Your task to perform on an android device: What's the weather? Image 0: 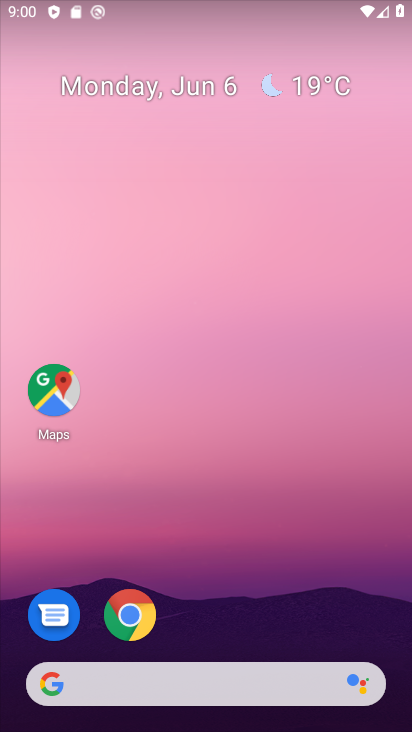
Step 0: drag from (299, 605) to (211, 172)
Your task to perform on an android device: What's the weather? Image 1: 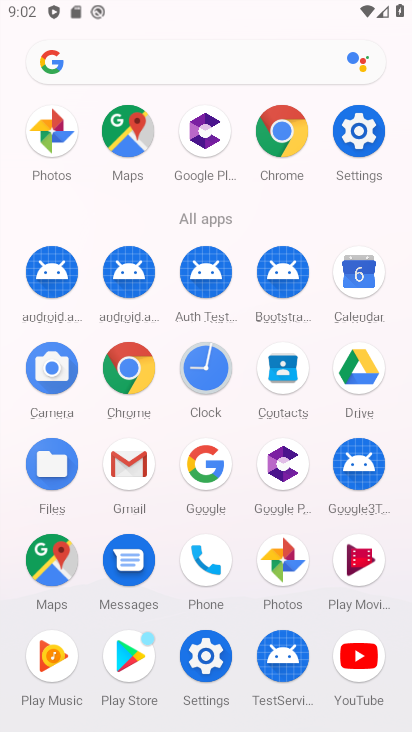
Step 1: click (220, 78)
Your task to perform on an android device: What's the weather? Image 2: 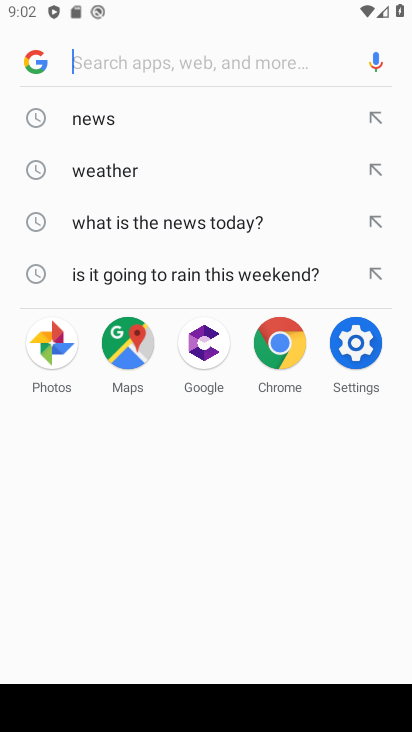
Step 2: click (155, 170)
Your task to perform on an android device: What's the weather? Image 3: 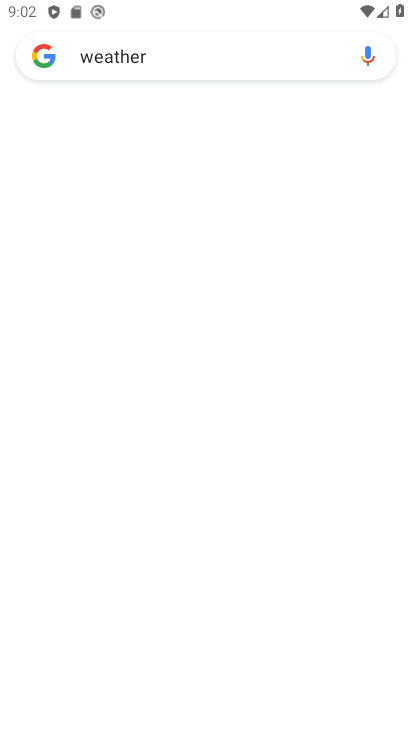
Step 3: task complete